Your task to perform on an android device: Open maps Image 0: 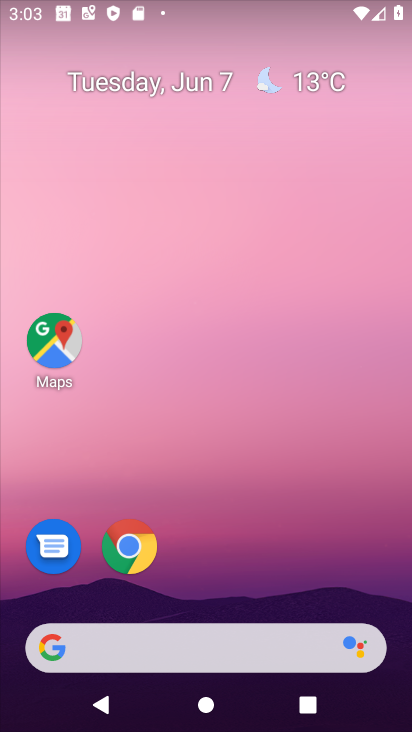
Step 0: click (59, 344)
Your task to perform on an android device: Open maps Image 1: 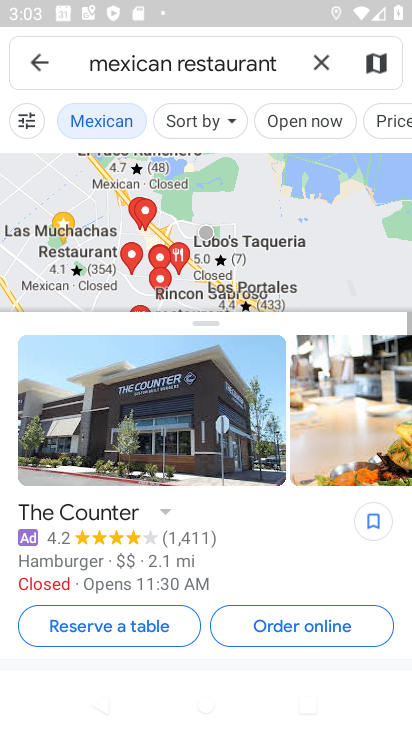
Step 1: click (330, 63)
Your task to perform on an android device: Open maps Image 2: 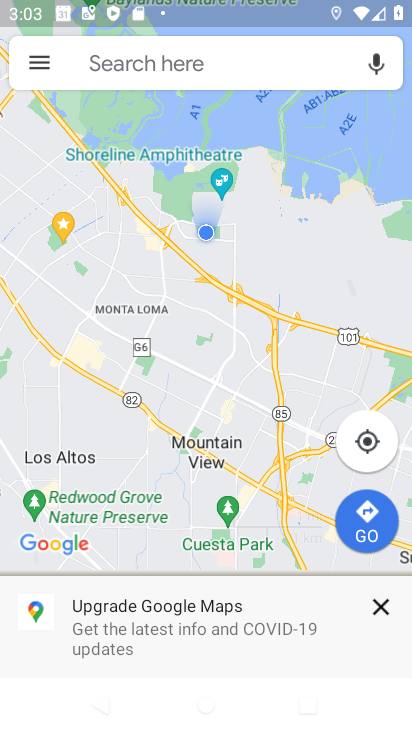
Step 2: task complete